Your task to perform on an android device: make emails show in primary in the gmail app Image 0: 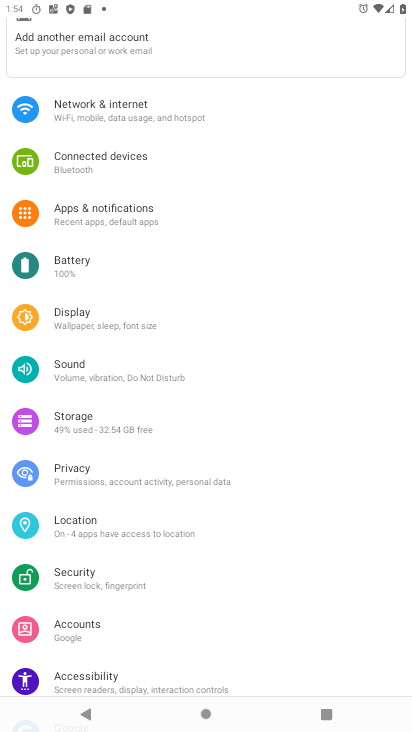
Step 0: press home button
Your task to perform on an android device: make emails show in primary in the gmail app Image 1: 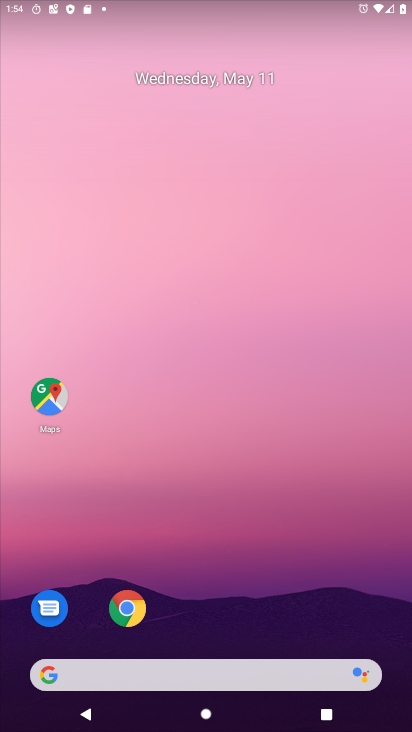
Step 1: drag from (271, 672) to (230, 186)
Your task to perform on an android device: make emails show in primary in the gmail app Image 2: 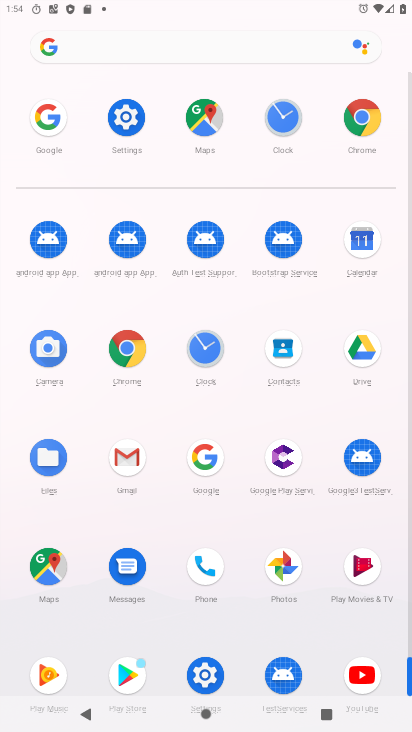
Step 2: click (121, 451)
Your task to perform on an android device: make emails show in primary in the gmail app Image 3: 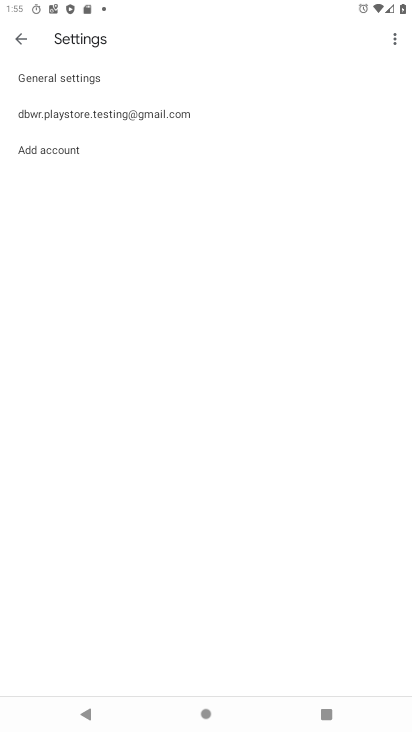
Step 3: click (17, 43)
Your task to perform on an android device: make emails show in primary in the gmail app Image 4: 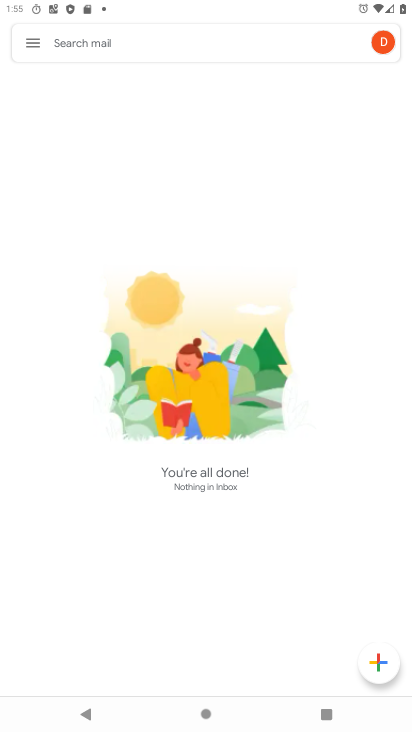
Step 4: click (26, 43)
Your task to perform on an android device: make emails show in primary in the gmail app Image 5: 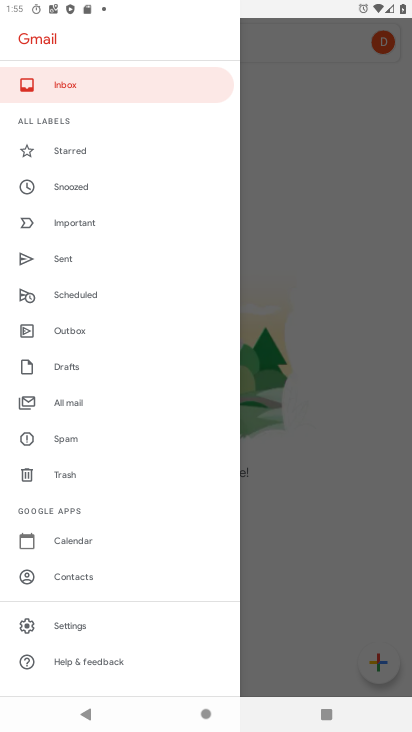
Step 5: click (91, 619)
Your task to perform on an android device: make emails show in primary in the gmail app Image 6: 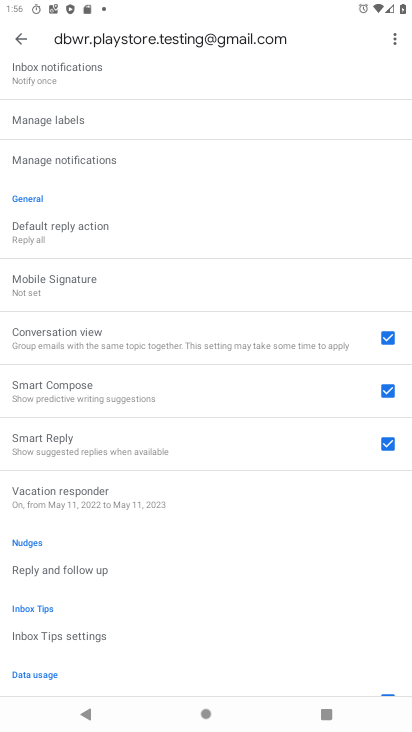
Step 6: task complete